Your task to perform on an android device: set the stopwatch Image 0: 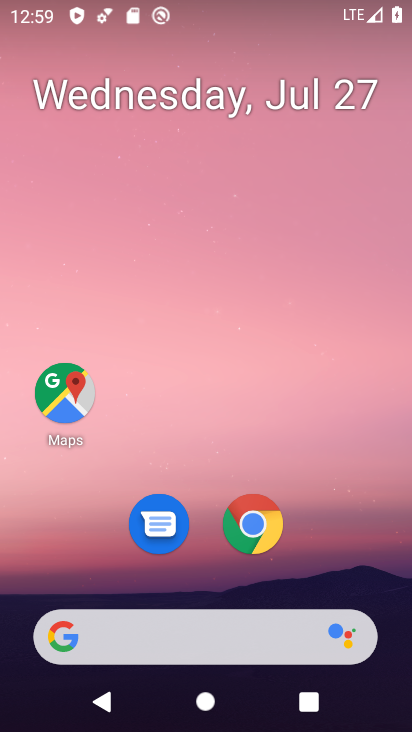
Step 0: drag from (324, 537) to (324, 1)
Your task to perform on an android device: set the stopwatch Image 1: 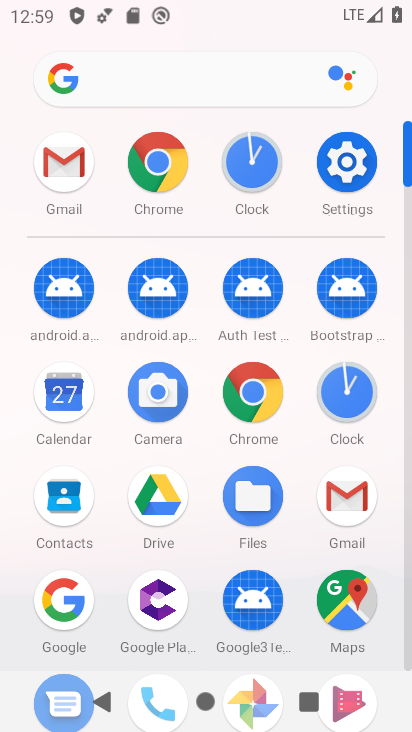
Step 1: click (258, 166)
Your task to perform on an android device: set the stopwatch Image 2: 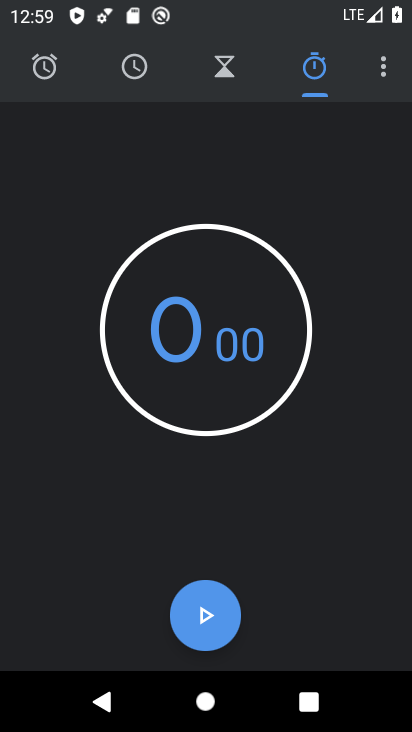
Step 2: click (221, 607)
Your task to perform on an android device: set the stopwatch Image 3: 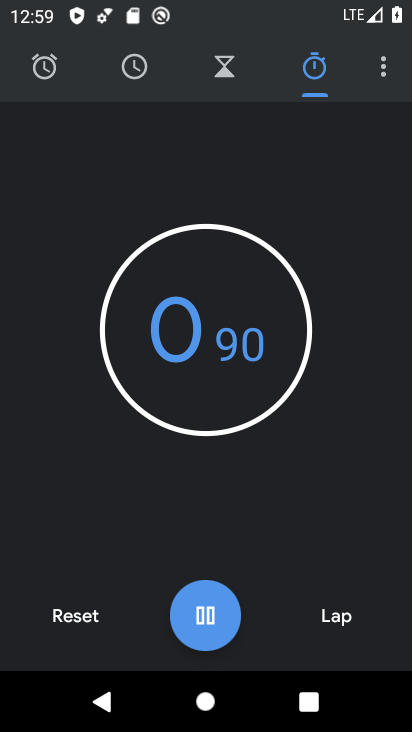
Step 3: click (221, 606)
Your task to perform on an android device: set the stopwatch Image 4: 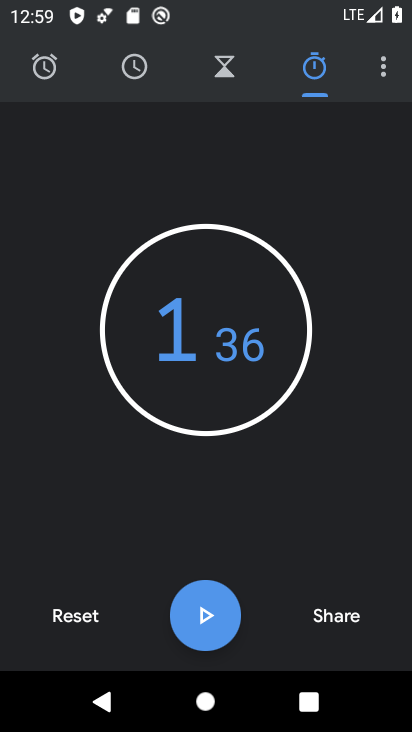
Step 4: task complete